Your task to perform on an android device: turn off wifi Image 0: 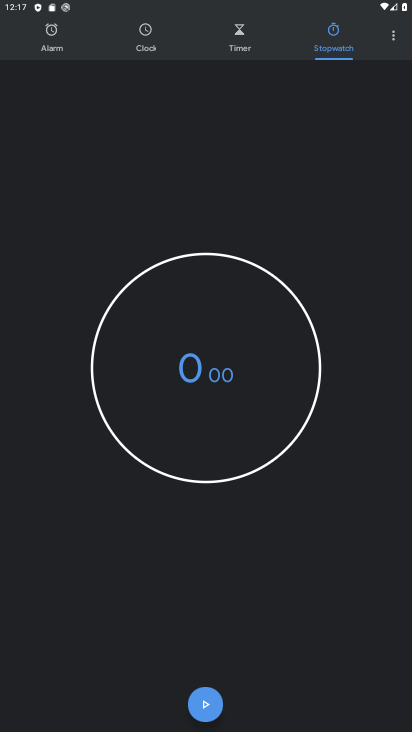
Step 0: press home button
Your task to perform on an android device: turn off wifi Image 1: 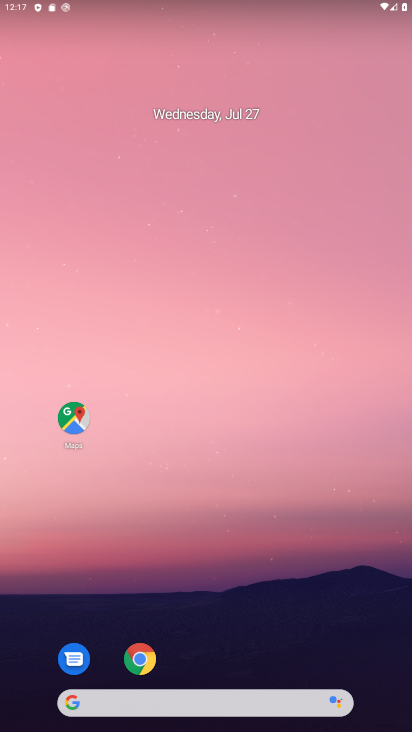
Step 1: drag from (333, 644) to (296, 121)
Your task to perform on an android device: turn off wifi Image 2: 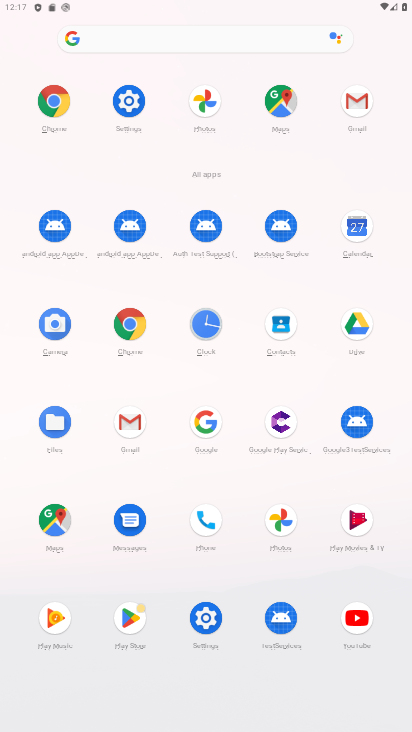
Step 2: click (105, 87)
Your task to perform on an android device: turn off wifi Image 3: 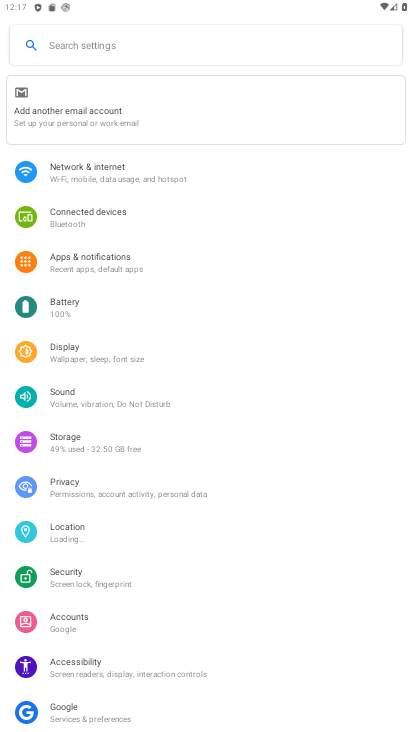
Step 3: click (133, 182)
Your task to perform on an android device: turn off wifi Image 4: 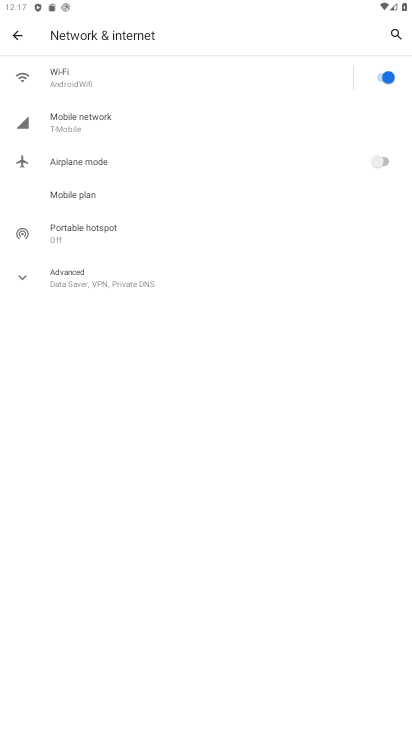
Step 4: click (75, 82)
Your task to perform on an android device: turn off wifi Image 5: 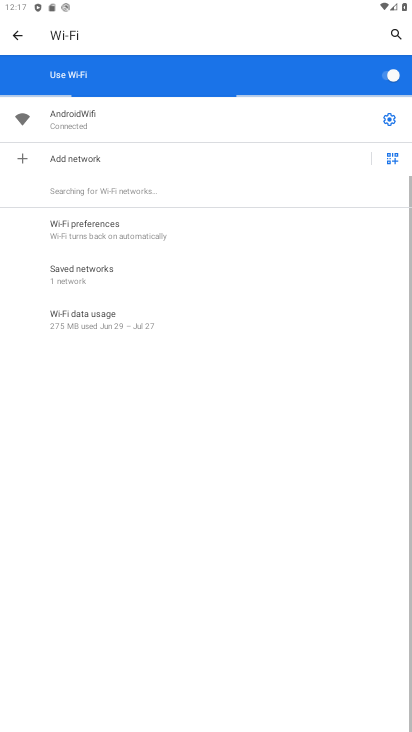
Step 5: click (381, 68)
Your task to perform on an android device: turn off wifi Image 6: 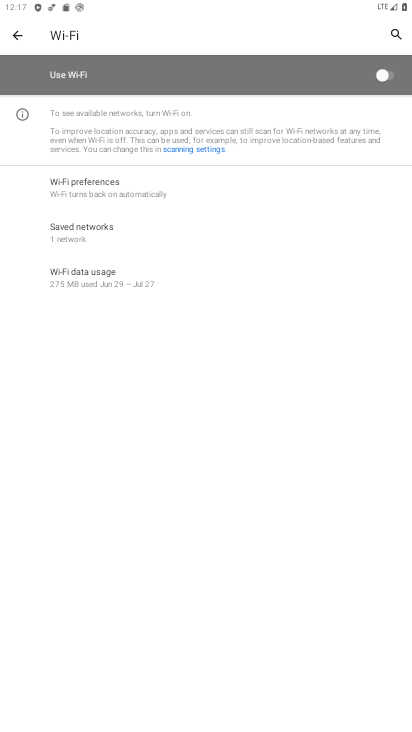
Step 6: task complete